Your task to perform on an android device: check the backup settings in the google photos Image 0: 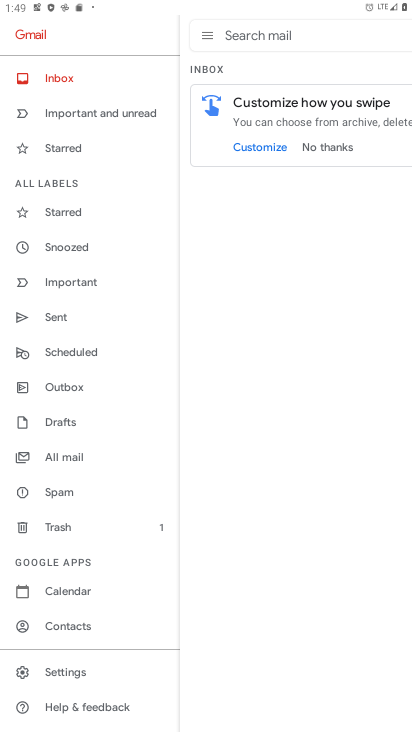
Step 0: press home button
Your task to perform on an android device: check the backup settings in the google photos Image 1: 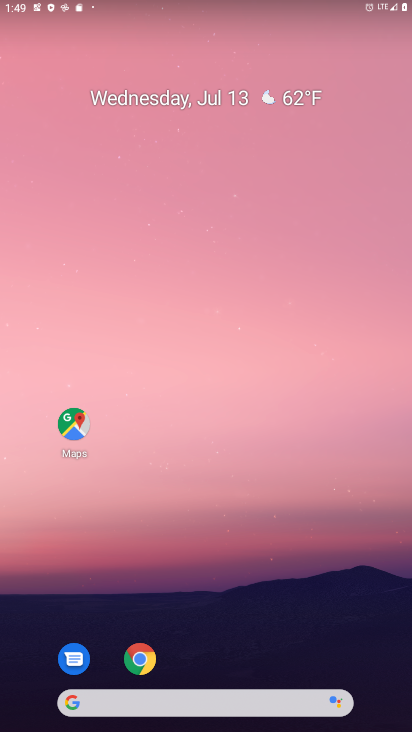
Step 1: drag from (215, 727) to (215, 123)
Your task to perform on an android device: check the backup settings in the google photos Image 2: 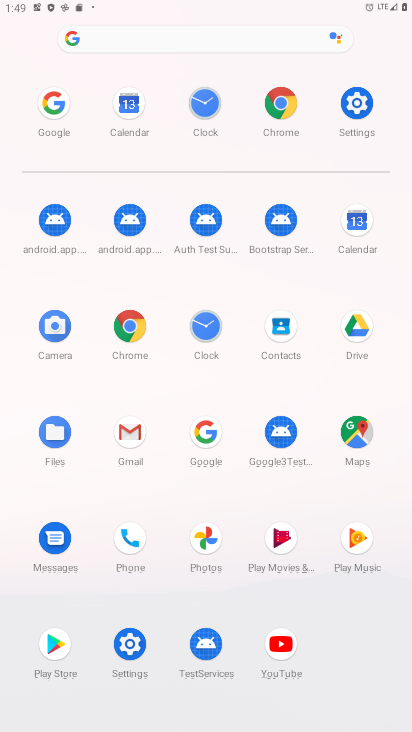
Step 2: click (204, 542)
Your task to perform on an android device: check the backup settings in the google photos Image 3: 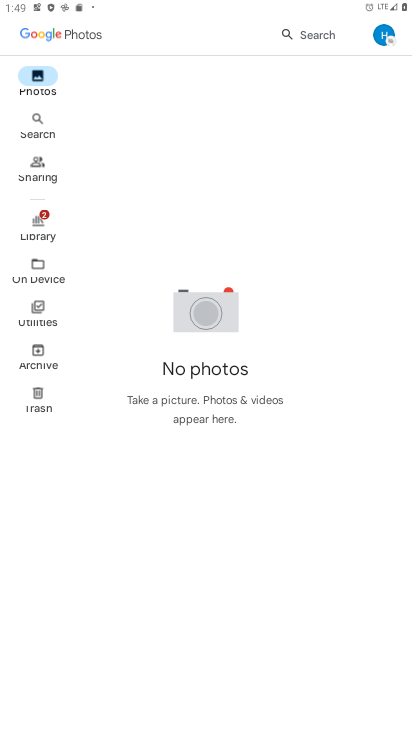
Step 3: click (379, 32)
Your task to perform on an android device: check the backup settings in the google photos Image 4: 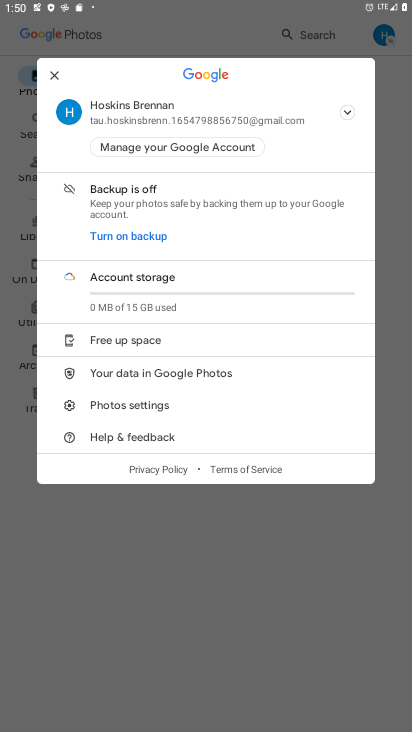
Step 4: click (132, 402)
Your task to perform on an android device: check the backup settings in the google photos Image 5: 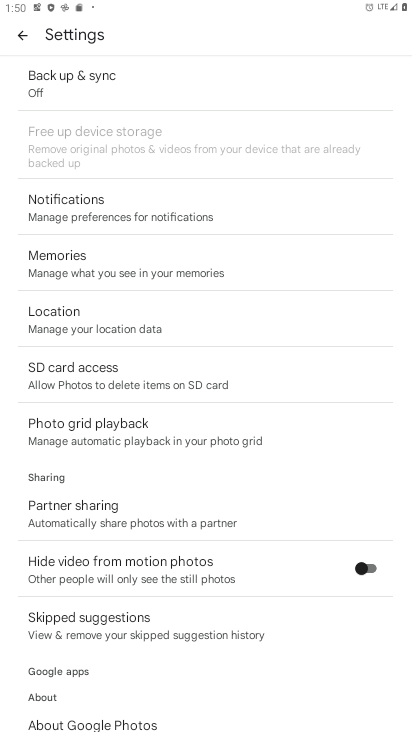
Step 5: click (60, 78)
Your task to perform on an android device: check the backup settings in the google photos Image 6: 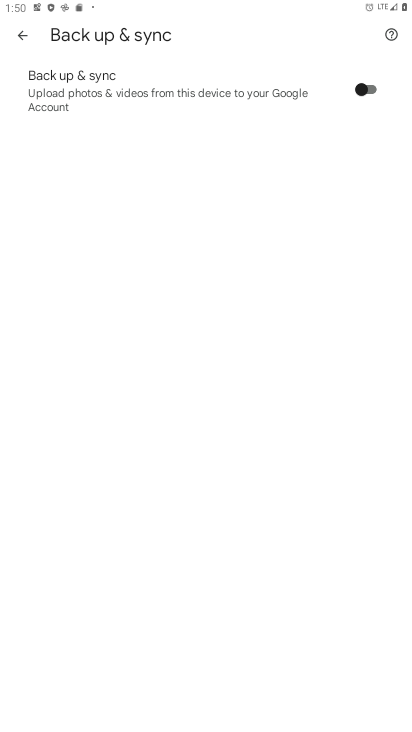
Step 6: click (376, 87)
Your task to perform on an android device: check the backup settings in the google photos Image 7: 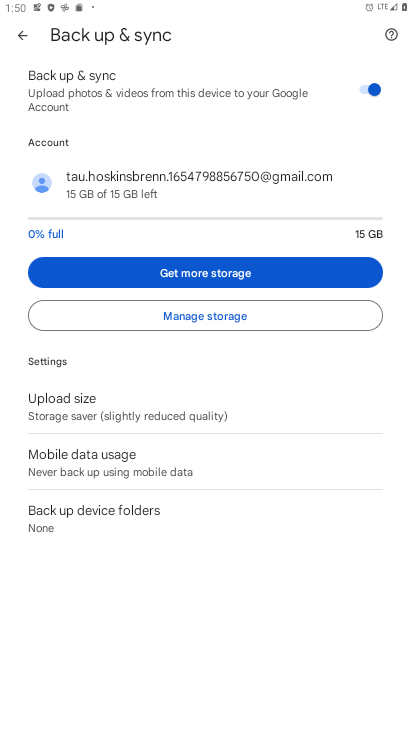
Step 7: task complete